Your task to perform on an android device: Open battery settings Image 0: 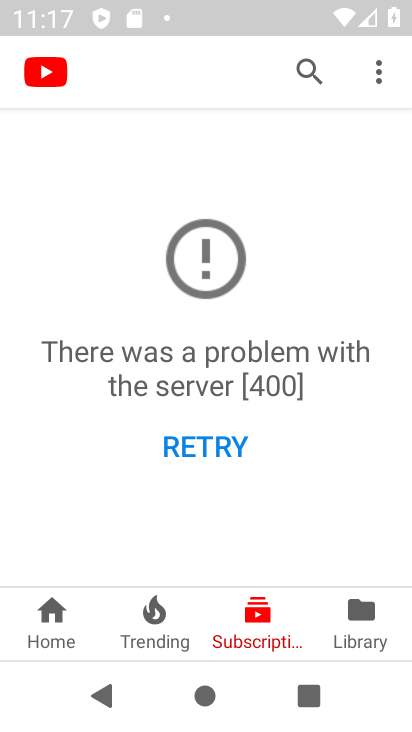
Step 0: press home button
Your task to perform on an android device: Open battery settings Image 1: 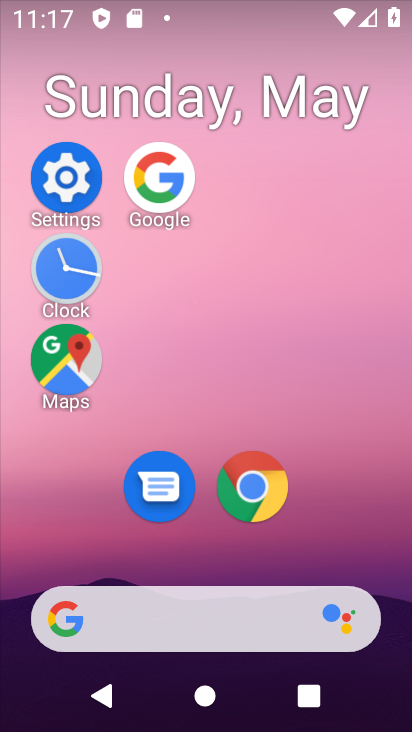
Step 1: click (47, 172)
Your task to perform on an android device: Open battery settings Image 2: 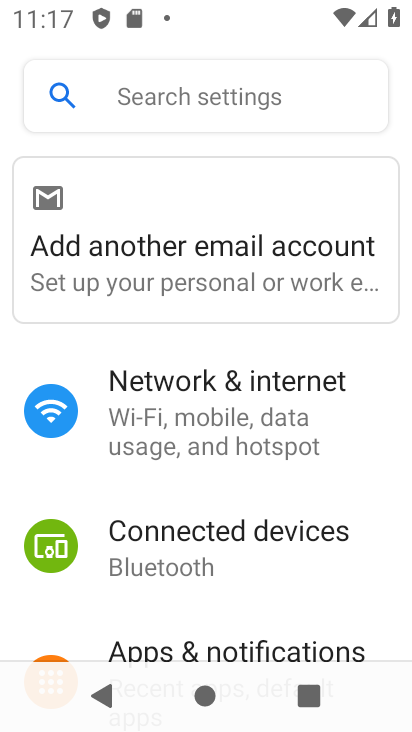
Step 2: drag from (309, 570) to (258, 154)
Your task to perform on an android device: Open battery settings Image 3: 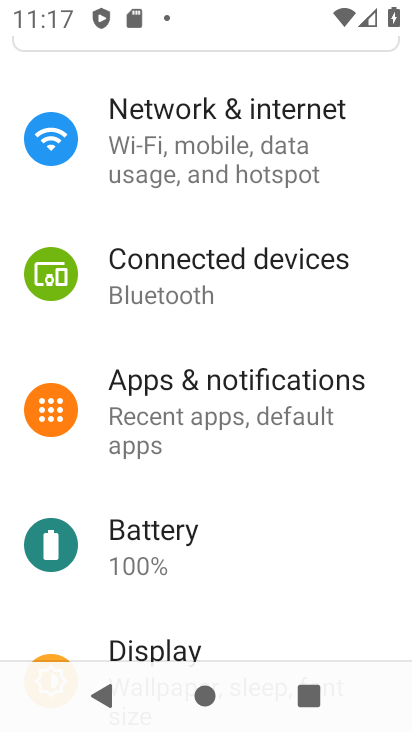
Step 3: click (246, 524)
Your task to perform on an android device: Open battery settings Image 4: 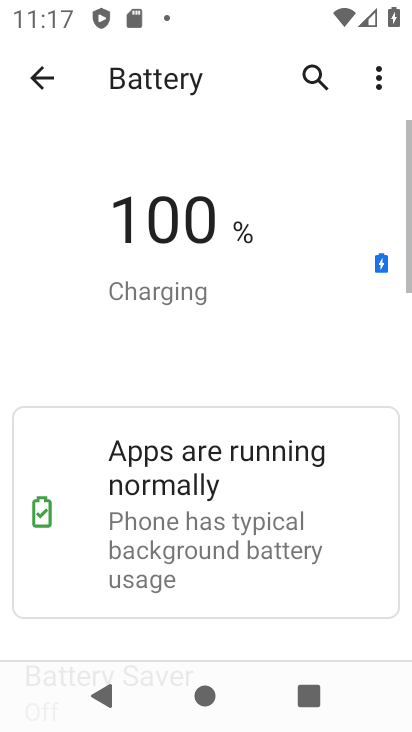
Step 4: task complete